Your task to perform on an android device: What is the news today? Image 0: 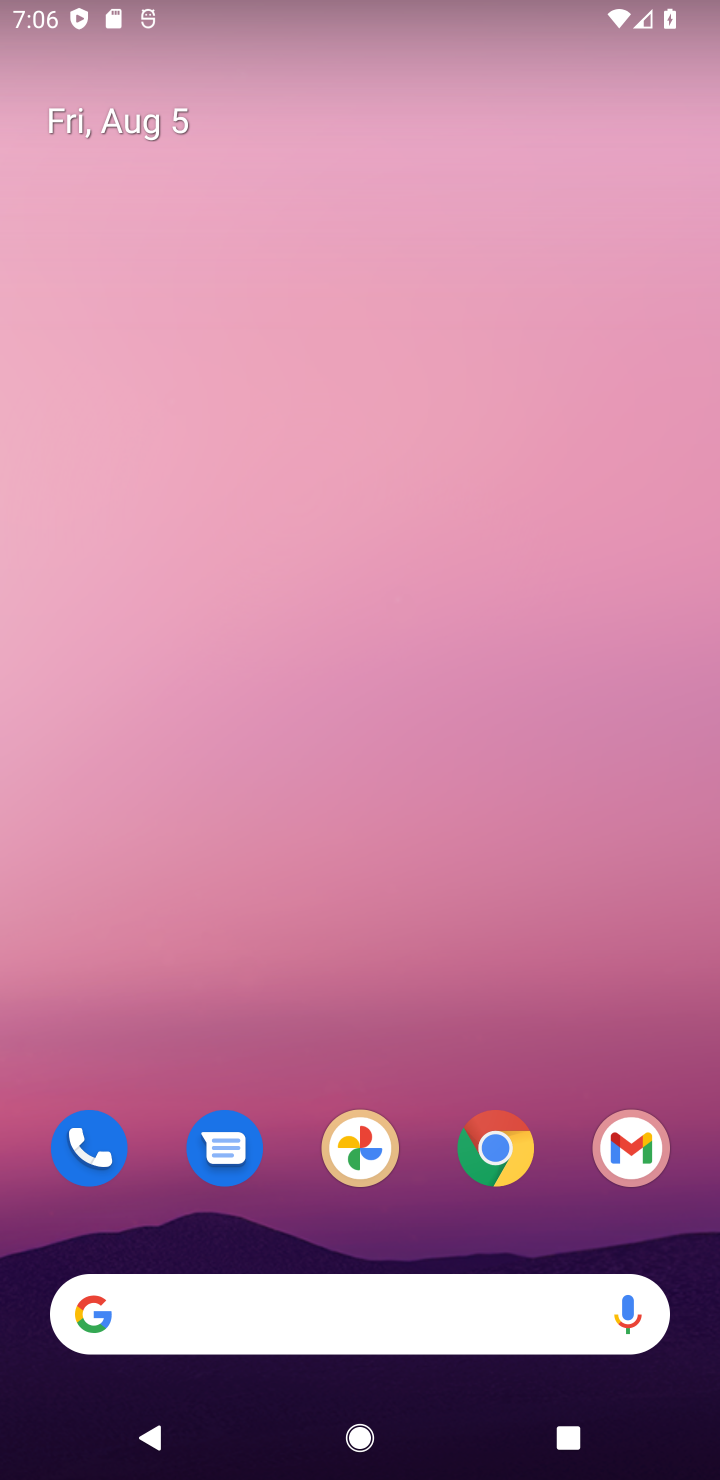
Step 0: drag from (420, 1226) to (312, 257)
Your task to perform on an android device: What is the news today? Image 1: 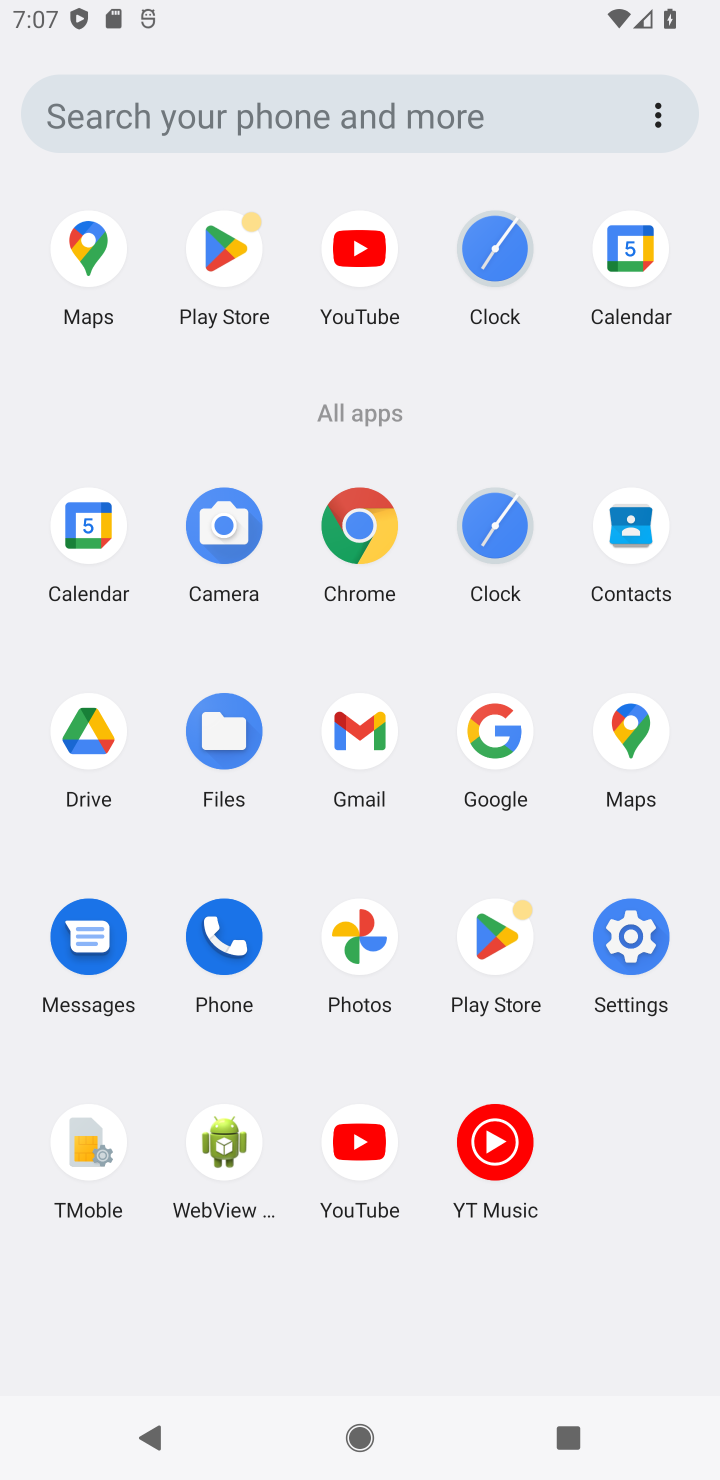
Step 1: click (333, 132)
Your task to perform on an android device: What is the news today? Image 2: 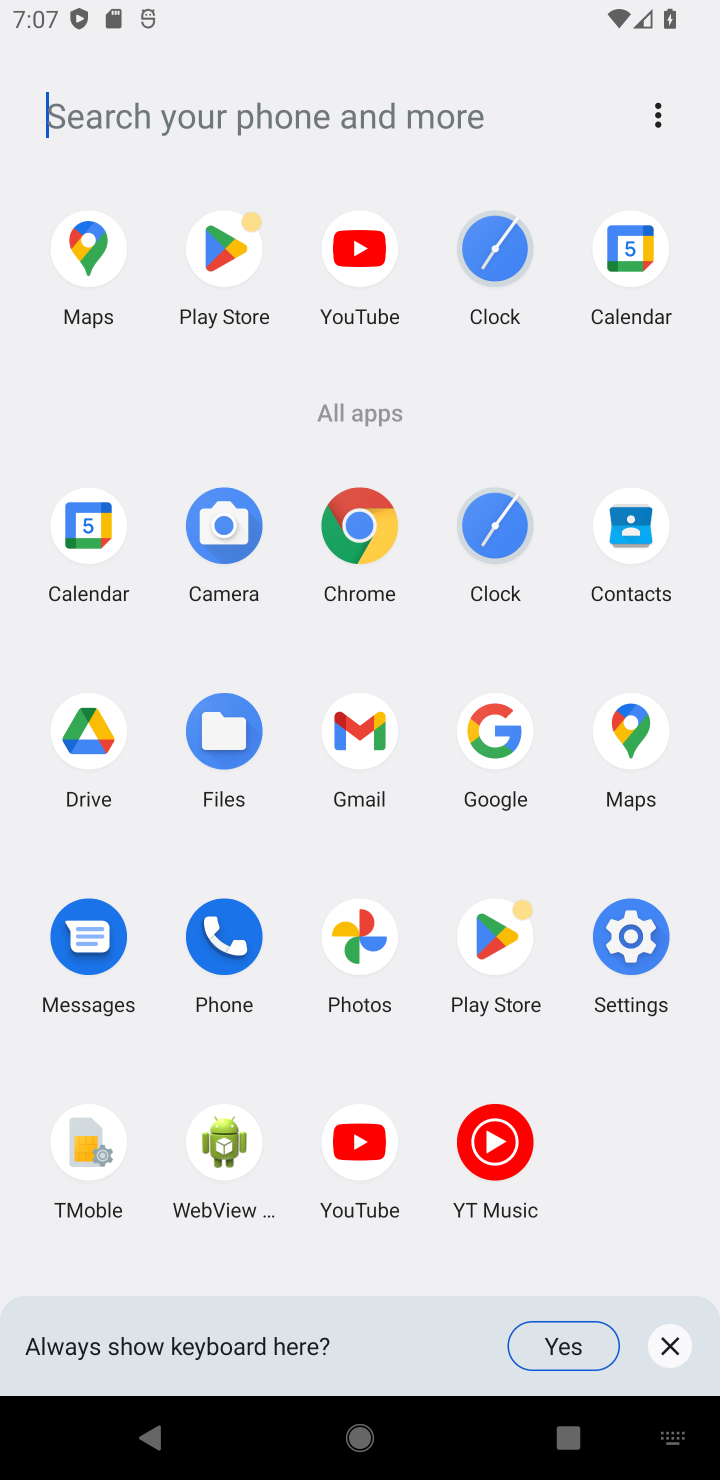
Step 2: type "news"
Your task to perform on an android device: What is the news today? Image 3: 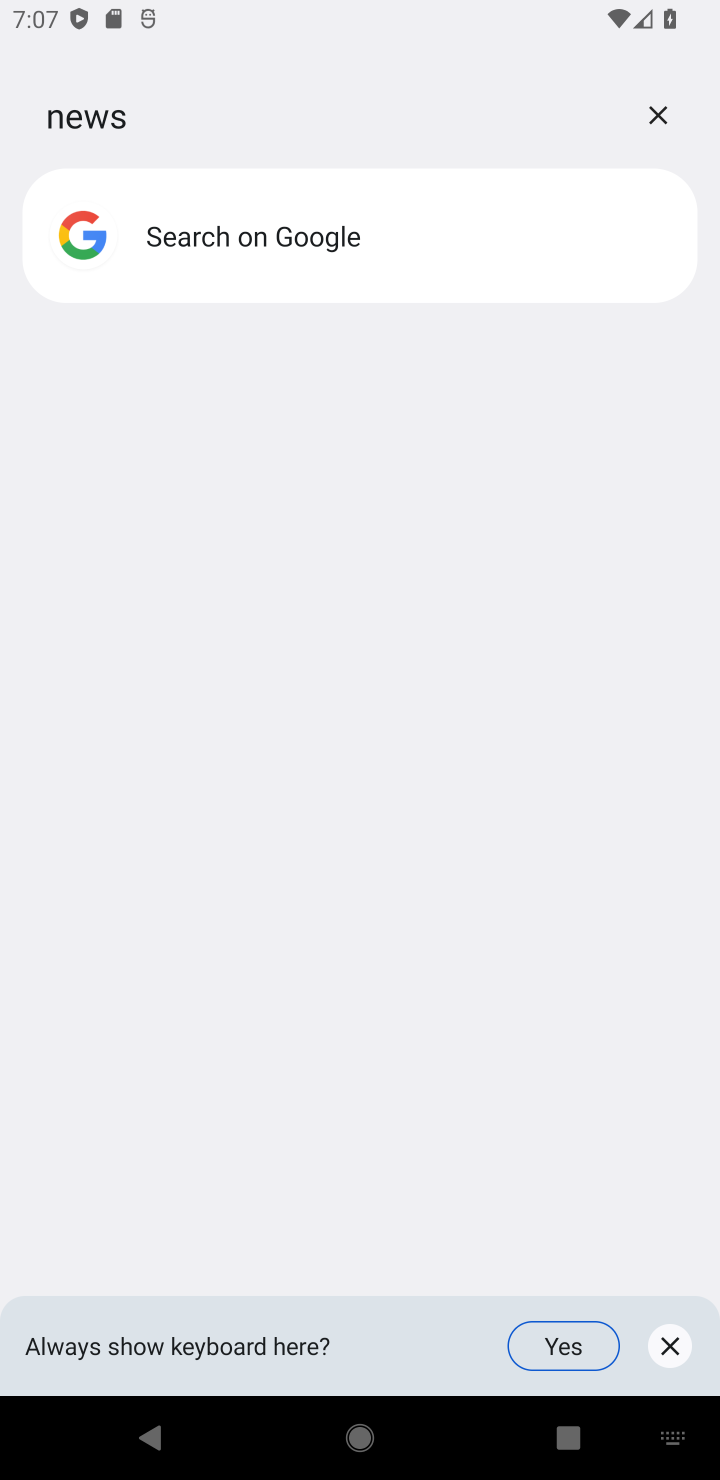
Step 3: task complete